Your task to perform on an android device: open app "Paramount+ | Peak Streaming" Image 0: 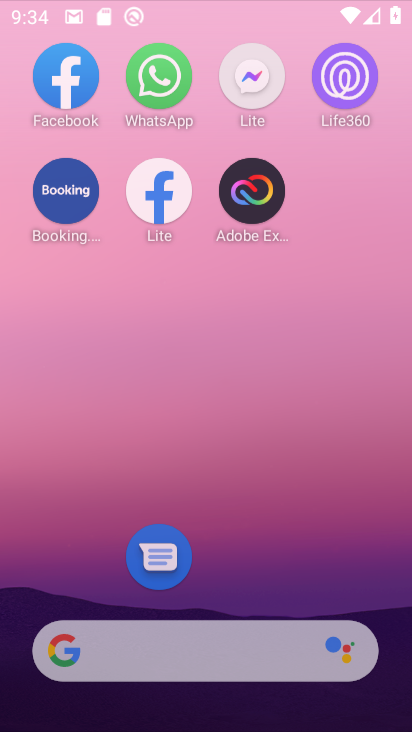
Step 0: click (408, 202)
Your task to perform on an android device: open app "Paramount+ | Peak Streaming" Image 1: 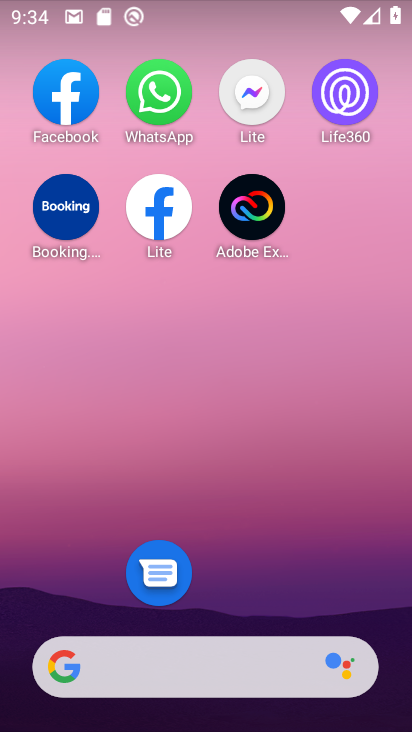
Step 1: drag from (232, 589) to (272, 2)
Your task to perform on an android device: open app "Paramount+ | Peak Streaming" Image 2: 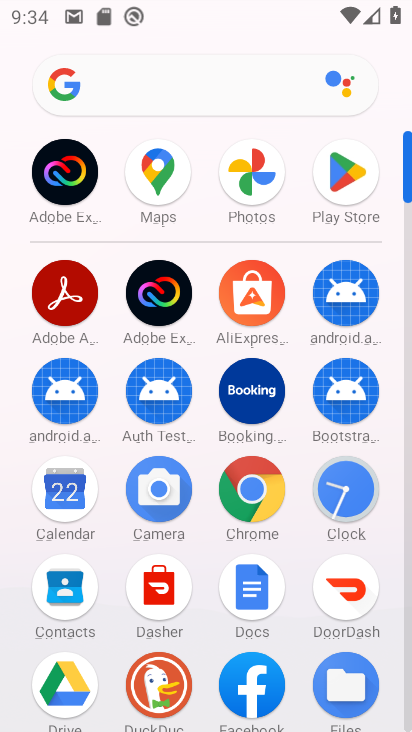
Step 2: click (349, 159)
Your task to perform on an android device: open app "Paramount+ | Peak Streaming" Image 3: 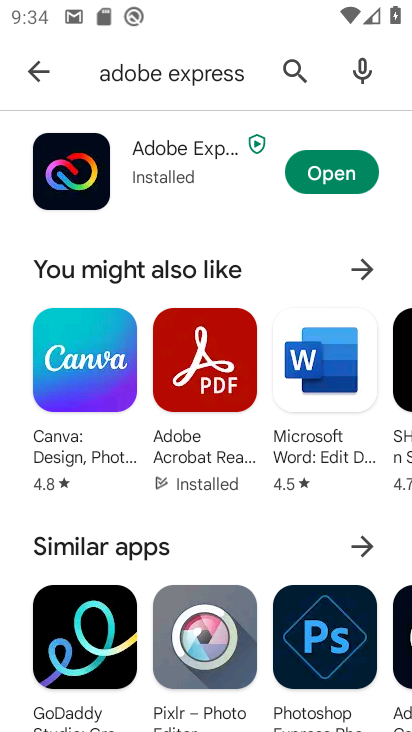
Step 3: click (216, 94)
Your task to perform on an android device: open app "Paramount+ | Peak Streaming" Image 4: 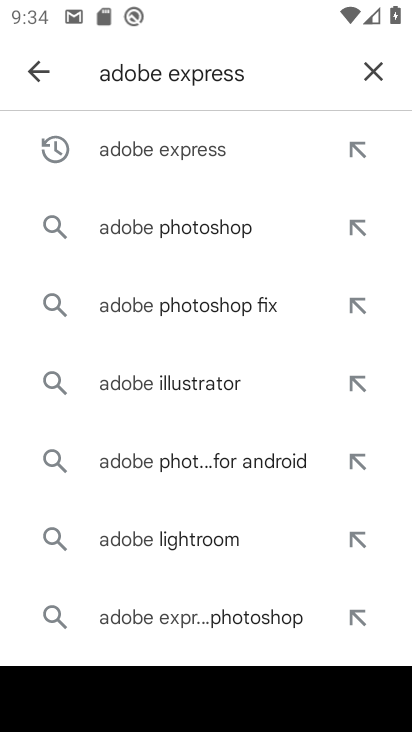
Step 4: click (366, 78)
Your task to perform on an android device: open app "Paramount+ | Peak Streaming" Image 5: 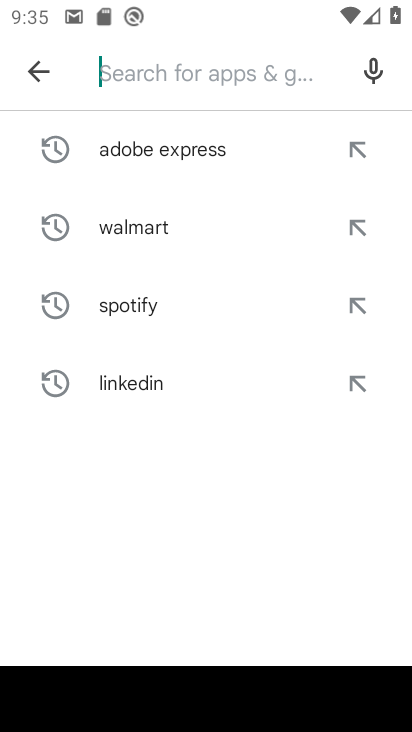
Step 5: type "Paramount +"
Your task to perform on an android device: open app "Paramount+ | Peak Streaming" Image 6: 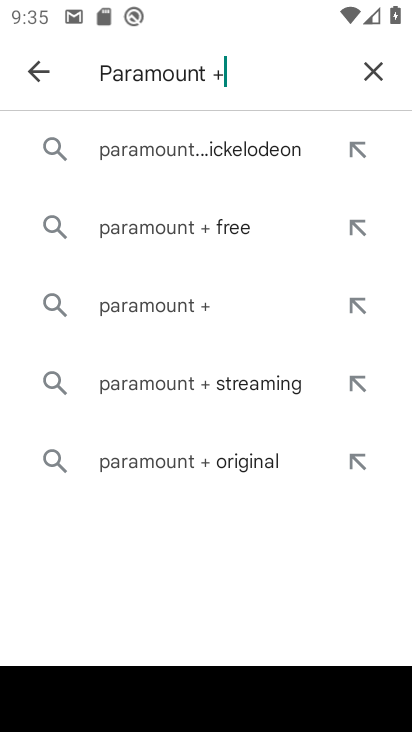
Step 6: click (155, 392)
Your task to perform on an android device: open app "Paramount+ | Peak Streaming" Image 7: 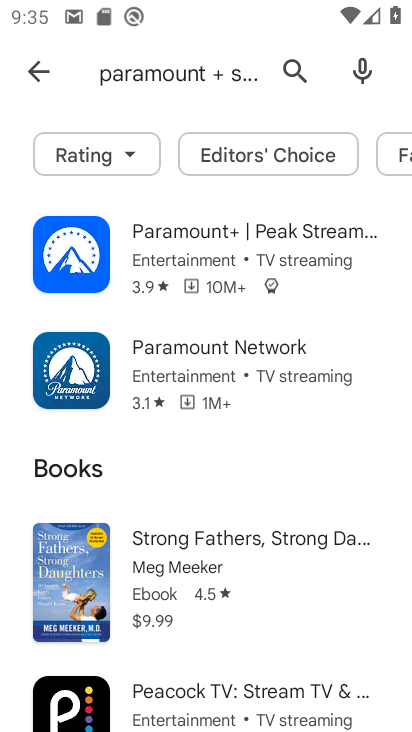
Step 7: click (174, 278)
Your task to perform on an android device: open app "Paramount+ | Peak Streaming" Image 8: 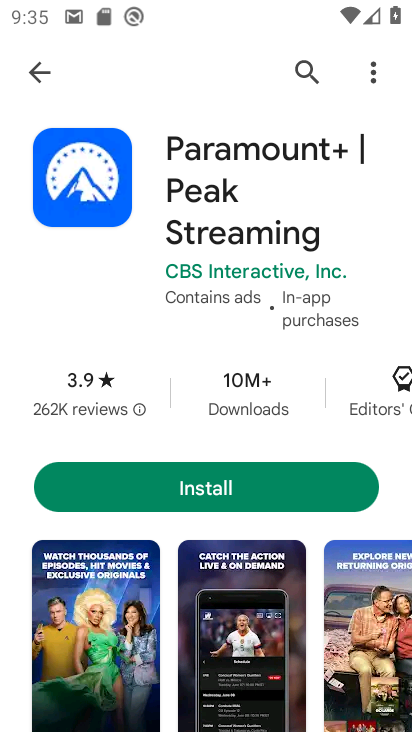
Step 8: task complete